Your task to perform on an android device: Open eBay Image 0: 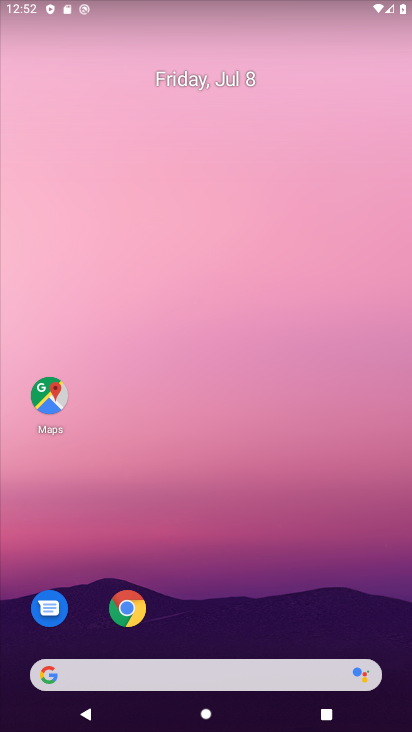
Step 0: drag from (175, 634) to (252, 137)
Your task to perform on an android device: Open eBay Image 1: 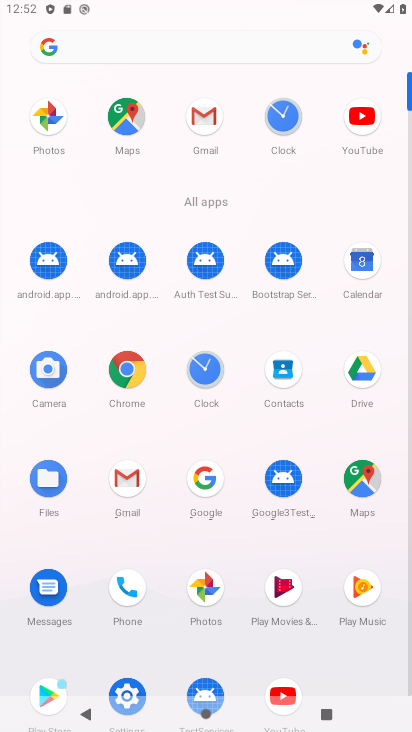
Step 1: click (211, 477)
Your task to perform on an android device: Open eBay Image 2: 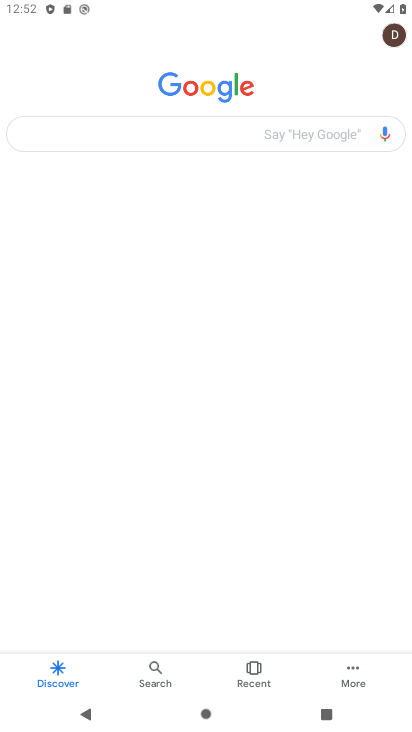
Step 2: click (138, 129)
Your task to perform on an android device: Open eBay Image 3: 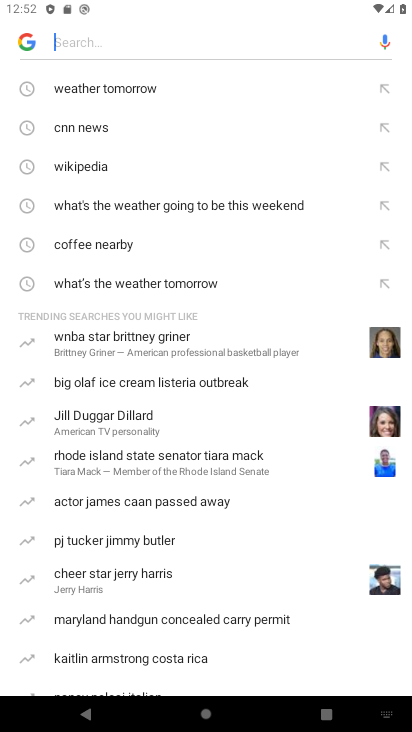
Step 3: type "ebay"
Your task to perform on an android device: Open eBay Image 4: 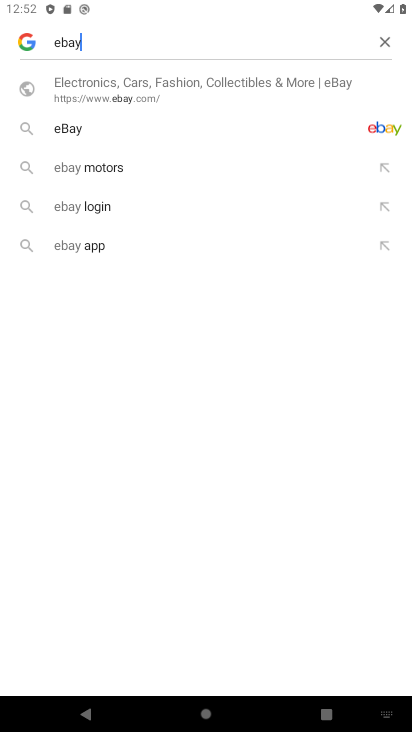
Step 4: click (111, 130)
Your task to perform on an android device: Open eBay Image 5: 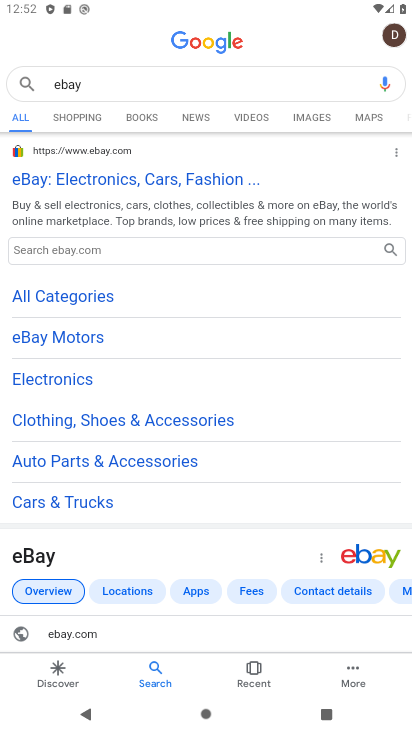
Step 5: click (151, 172)
Your task to perform on an android device: Open eBay Image 6: 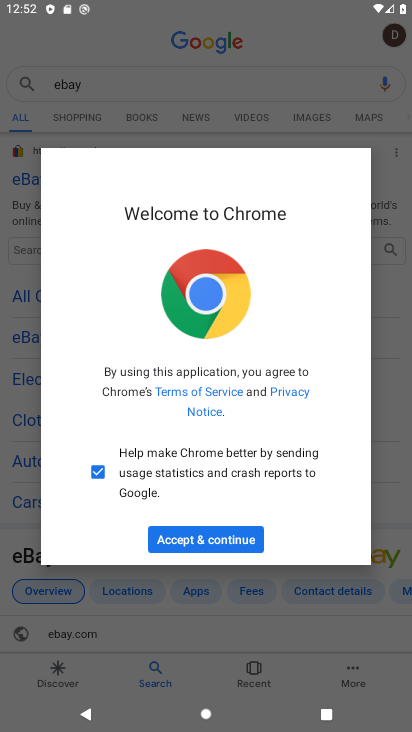
Step 6: click (217, 539)
Your task to perform on an android device: Open eBay Image 7: 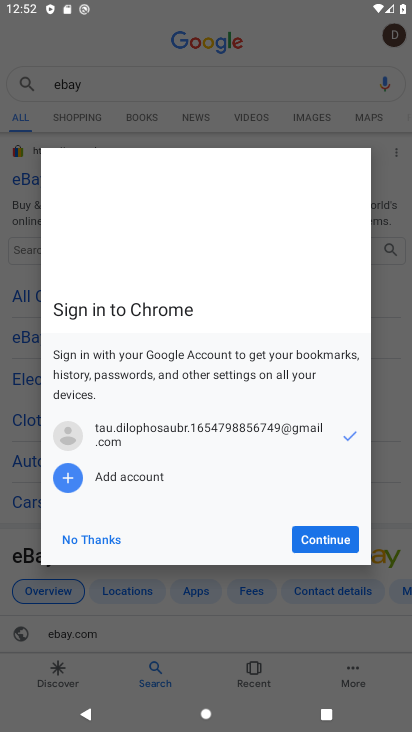
Step 7: click (326, 541)
Your task to perform on an android device: Open eBay Image 8: 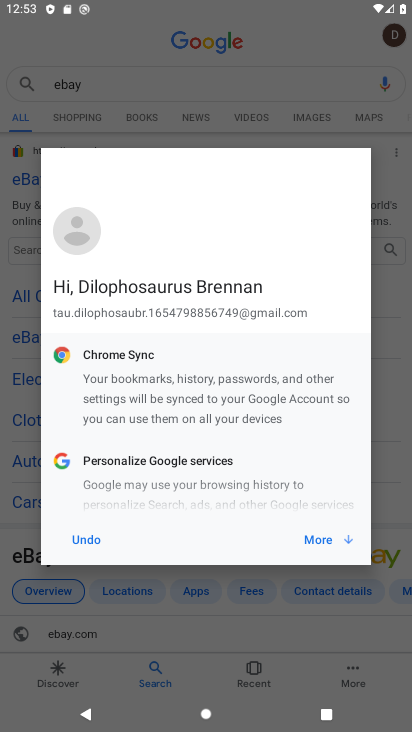
Step 8: click (326, 541)
Your task to perform on an android device: Open eBay Image 9: 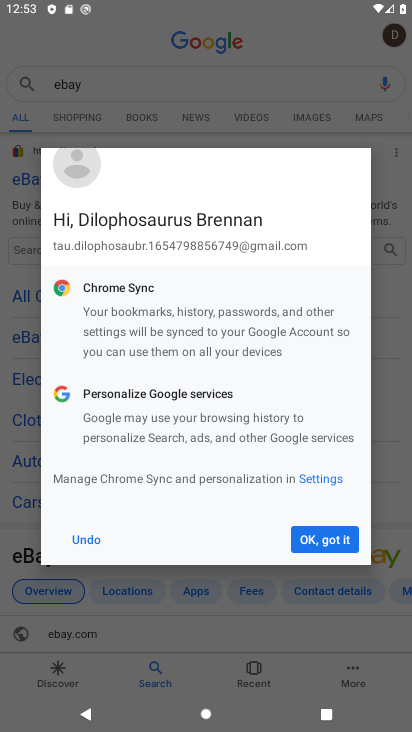
Step 9: click (326, 541)
Your task to perform on an android device: Open eBay Image 10: 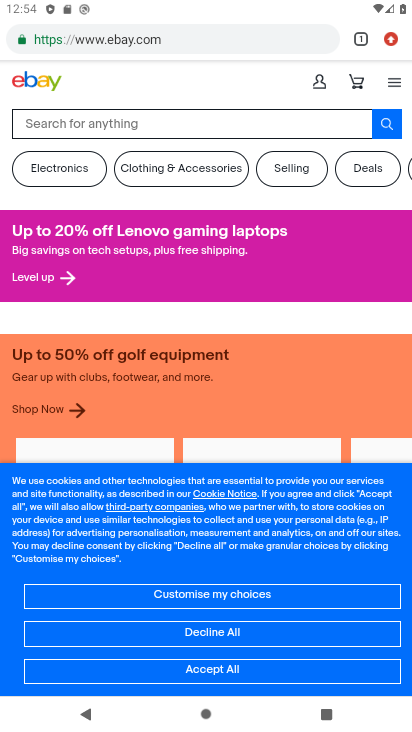
Step 10: task complete